Your task to perform on an android device: create a new album in the google photos Image 0: 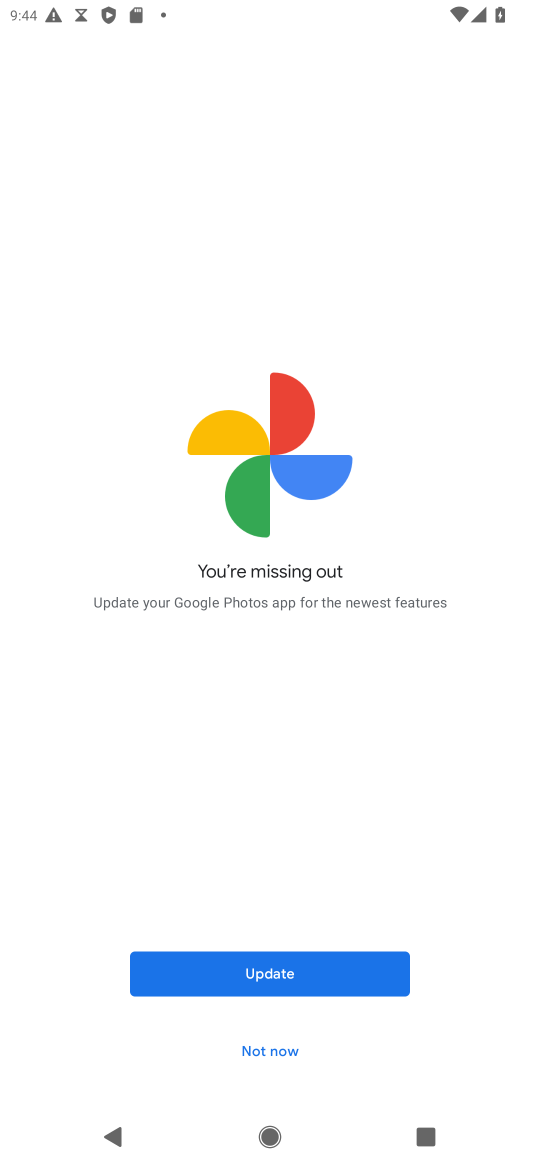
Step 0: press home button
Your task to perform on an android device: create a new album in the google photos Image 1: 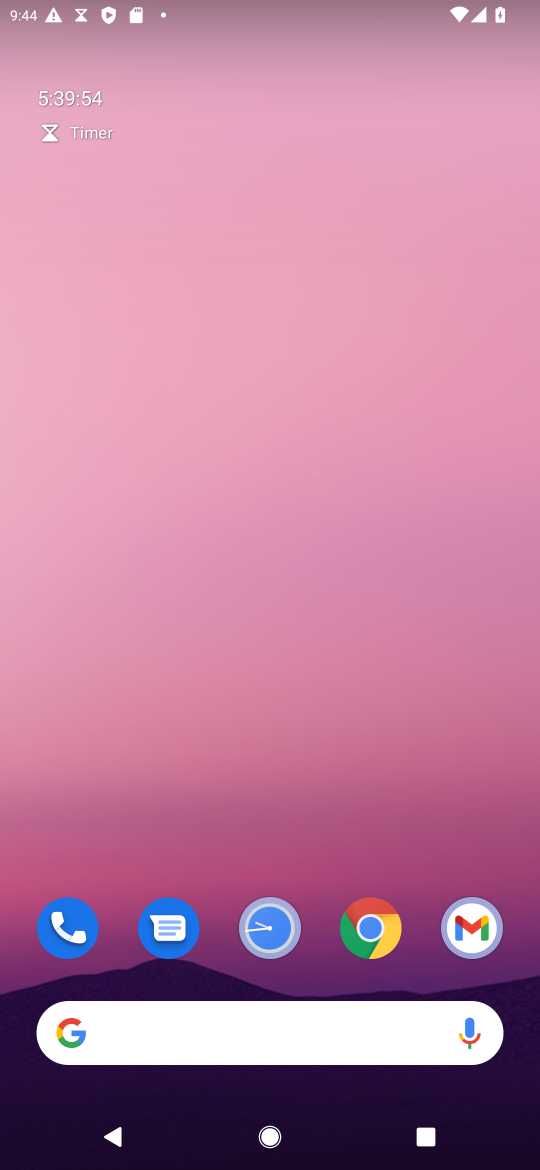
Step 1: drag from (263, 837) to (264, 189)
Your task to perform on an android device: create a new album in the google photos Image 2: 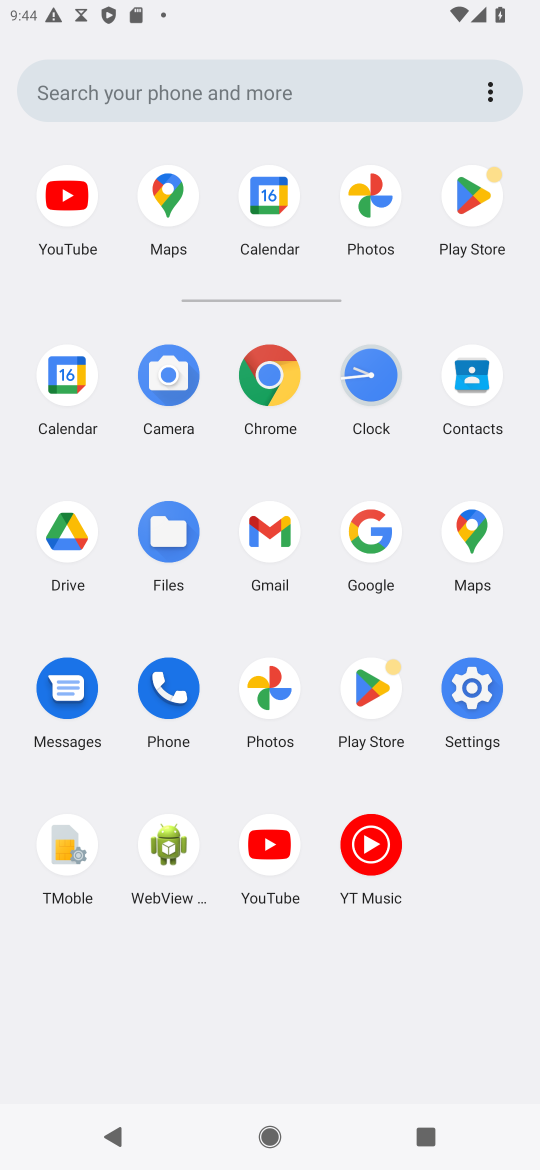
Step 2: click (254, 687)
Your task to perform on an android device: create a new album in the google photos Image 3: 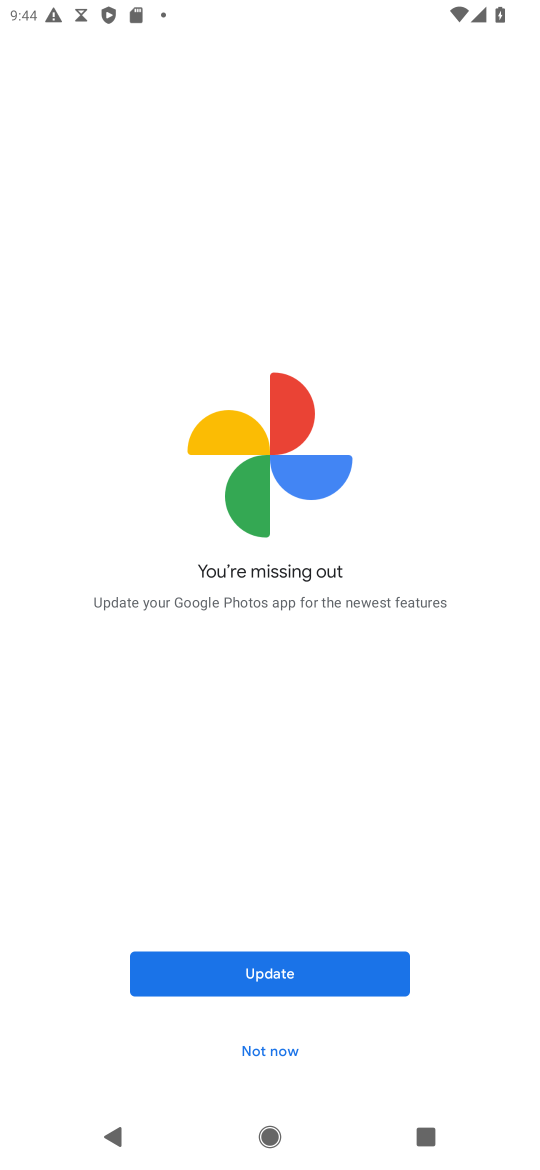
Step 3: click (288, 974)
Your task to perform on an android device: create a new album in the google photos Image 4: 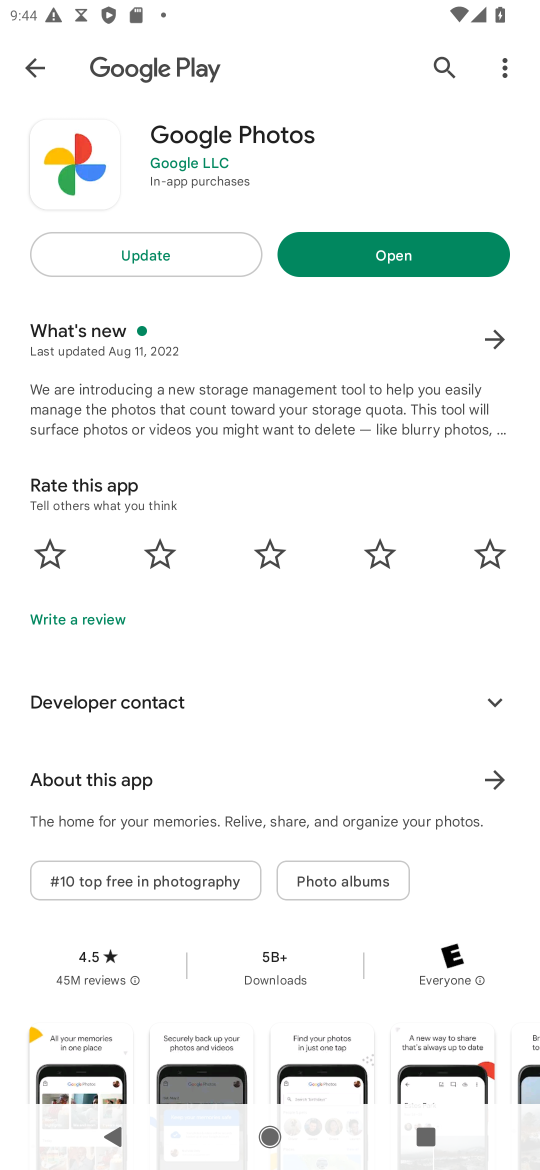
Step 4: click (150, 255)
Your task to perform on an android device: create a new album in the google photos Image 5: 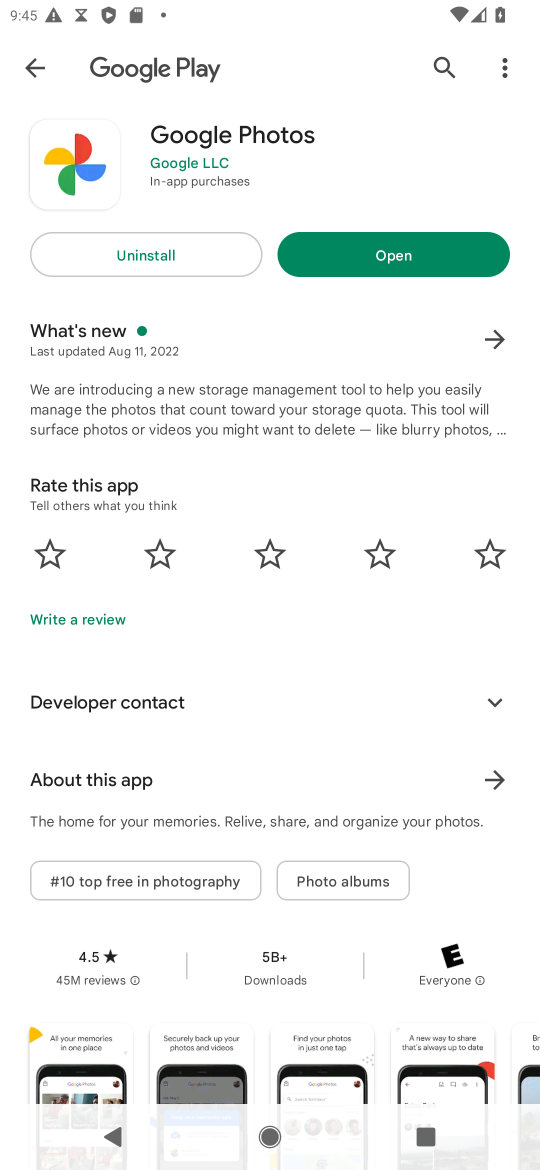
Step 5: click (406, 263)
Your task to perform on an android device: create a new album in the google photos Image 6: 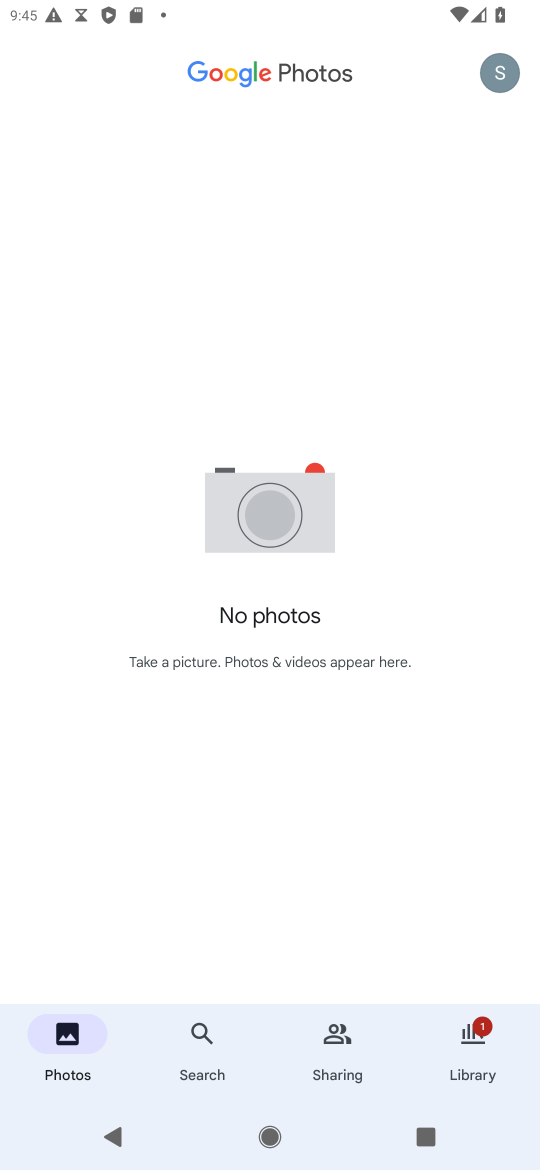
Step 6: click (63, 1038)
Your task to perform on an android device: create a new album in the google photos Image 7: 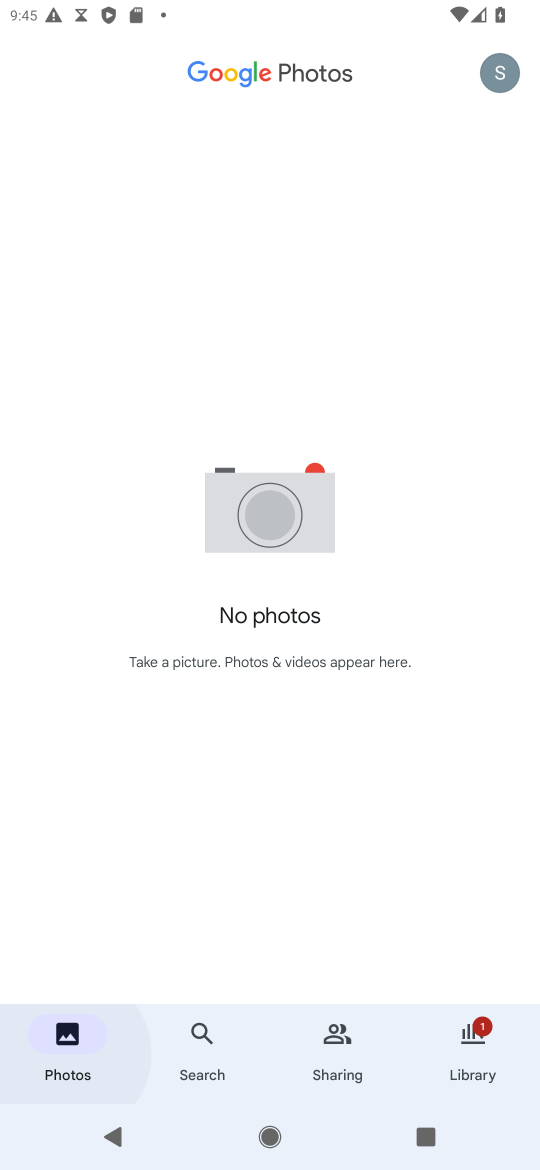
Step 7: click (465, 1052)
Your task to perform on an android device: create a new album in the google photos Image 8: 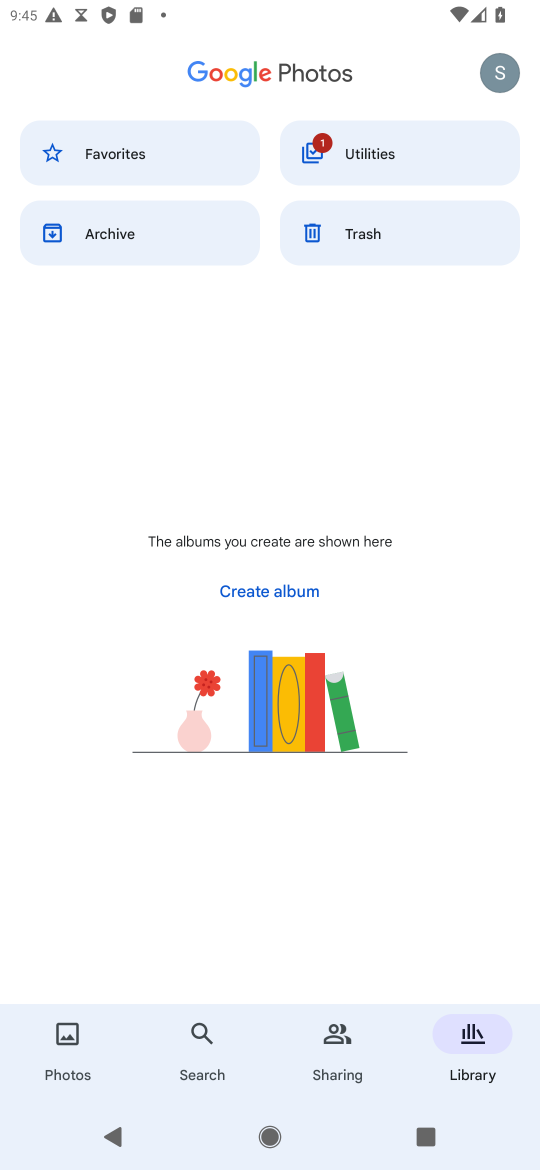
Step 8: click (226, 583)
Your task to perform on an android device: create a new album in the google photos Image 9: 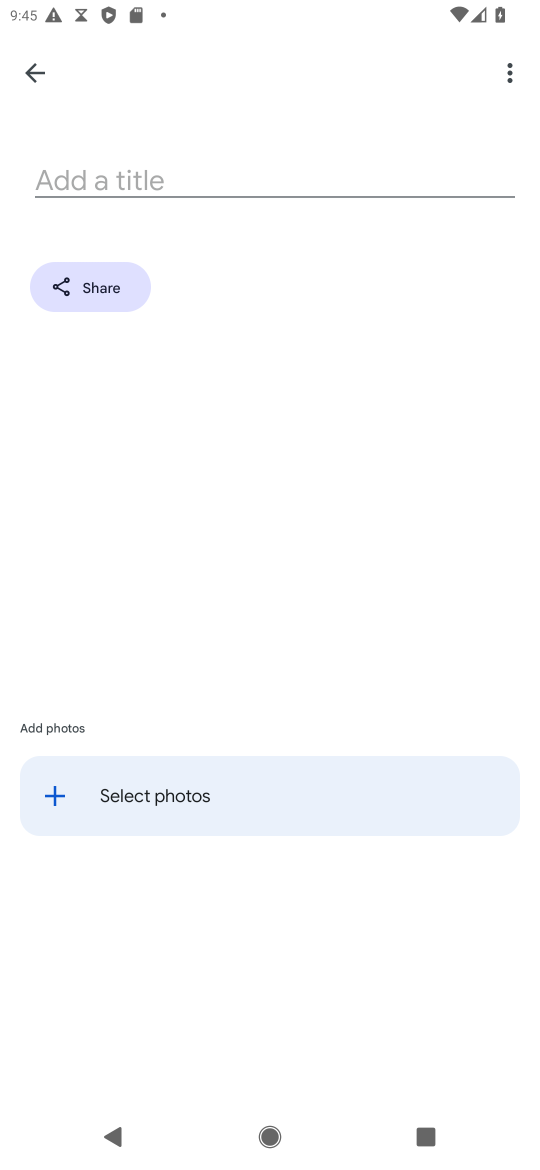
Step 9: click (500, 62)
Your task to perform on an android device: create a new album in the google photos Image 10: 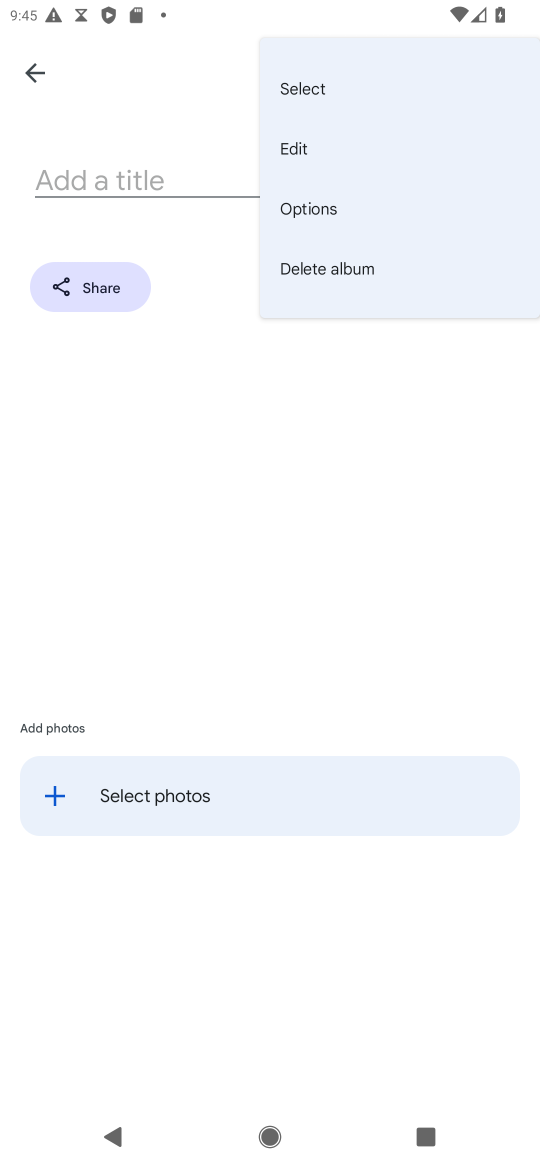
Step 10: click (472, 427)
Your task to perform on an android device: create a new album in the google photos Image 11: 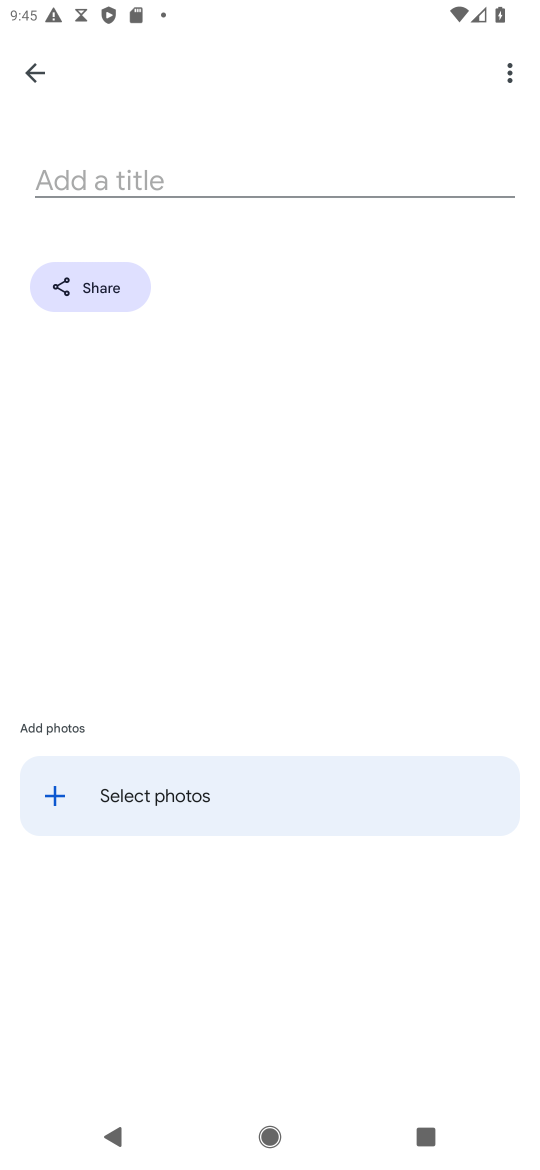
Step 11: task complete